Your task to perform on an android device: Go to location settings Image 0: 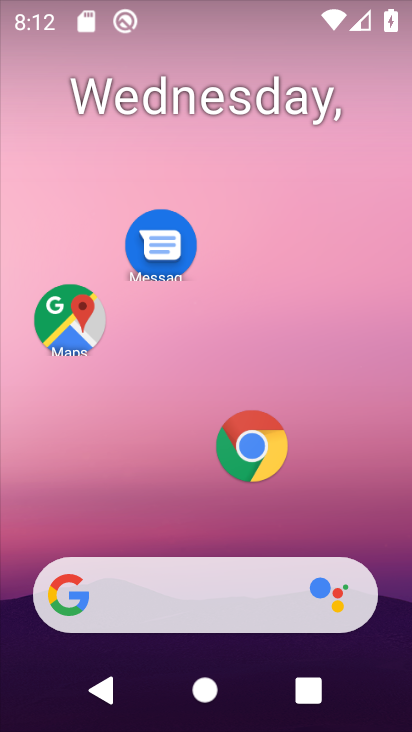
Step 0: drag from (189, 525) to (187, 8)
Your task to perform on an android device: Go to location settings Image 1: 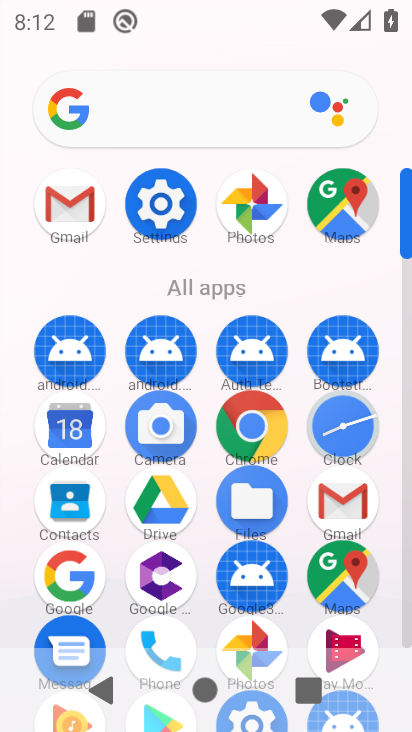
Step 1: click (157, 196)
Your task to perform on an android device: Go to location settings Image 2: 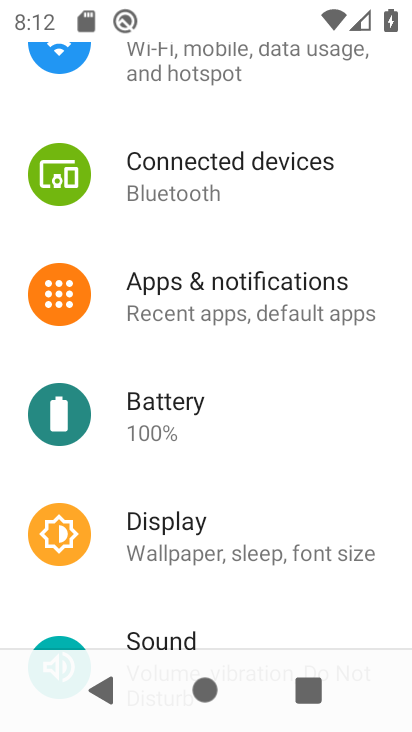
Step 2: drag from (214, 599) to (206, 103)
Your task to perform on an android device: Go to location settings Image 3: 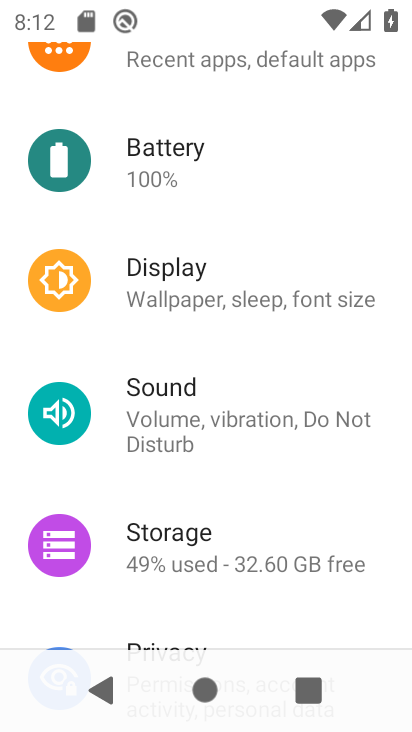
Step 3: drag from (214, 593) to (270, 2)
Your task to perform on an android device: Go to location settings Image 4: 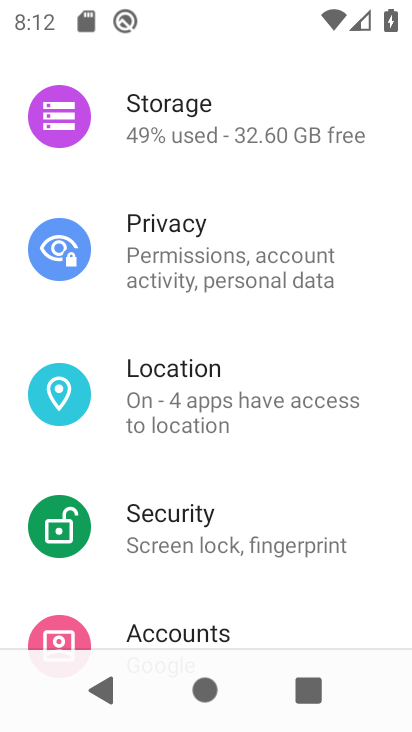
Step 4: click (218, 383)
Your task to perform on an android device: Go to location settings Image 5: 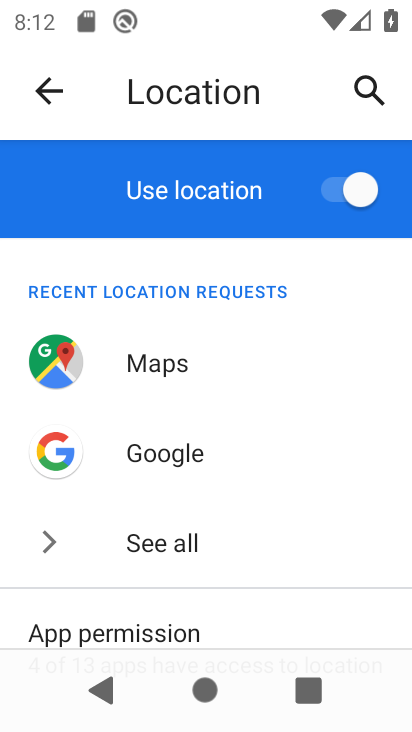
Step 5: drag from (218, 582) to (235, 134)
Your task to perform on an android device: Go to location settings Image 6: 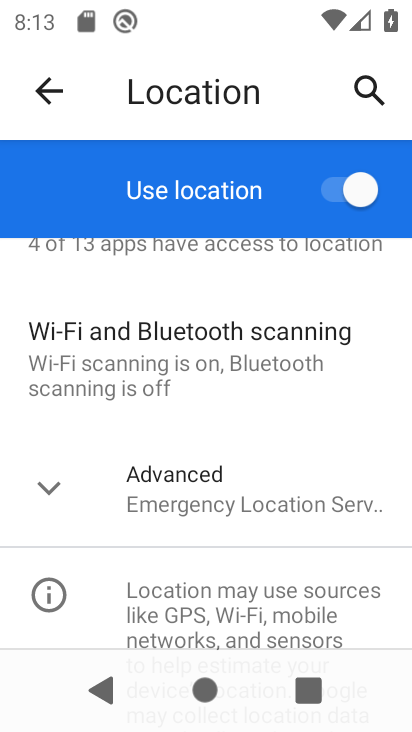
Step 6: click (46, 483)
Your task to perform on an android device: Go to location settings Image 7: 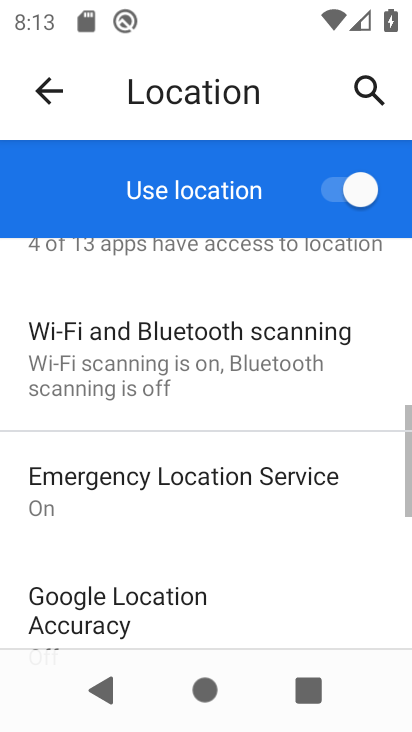
Step 7: task complete